Your task to perform on an android device: Do I have any events today? Image 0: 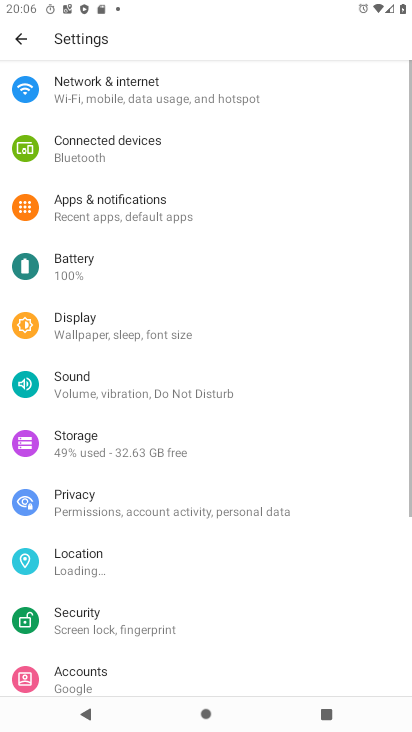
Step 0: press home button
Your task to perform on an android device: Do I have any events today? Image 1: 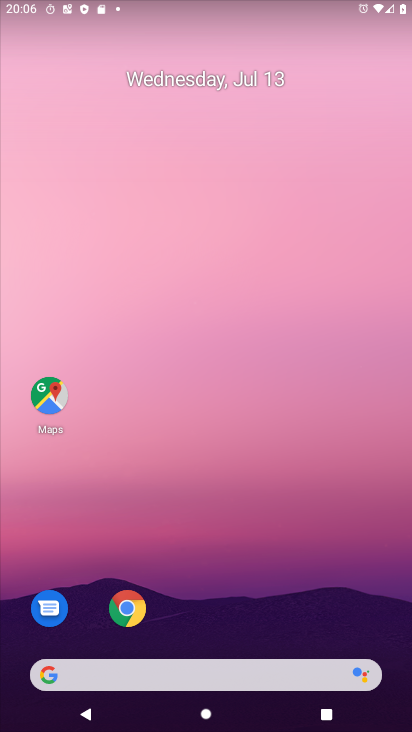
Step 1: drag from (221, 653) to (215, 165)
Your task to perform on an android device: Do I have any events today? Image 2: 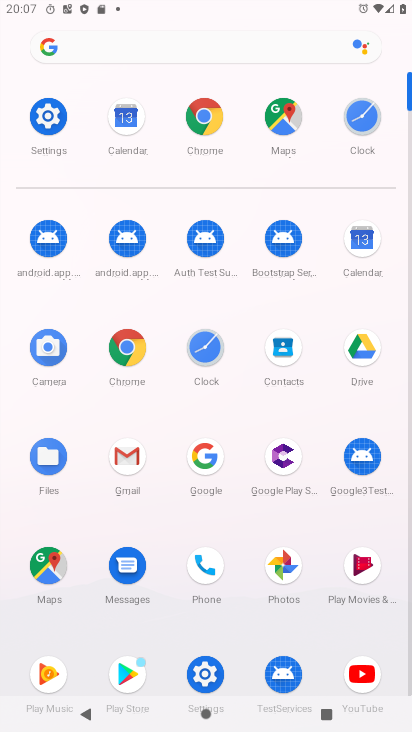
Step 2: click (357, 239)
Your task to perform on an android device: Do I have any events today? Image 3: 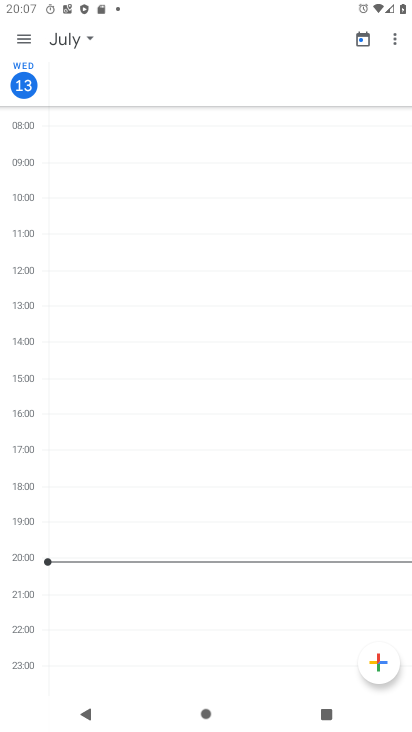
Step 3: click (23, 91)
Your task to perform on an android device: Do I have any events today? Image 4: 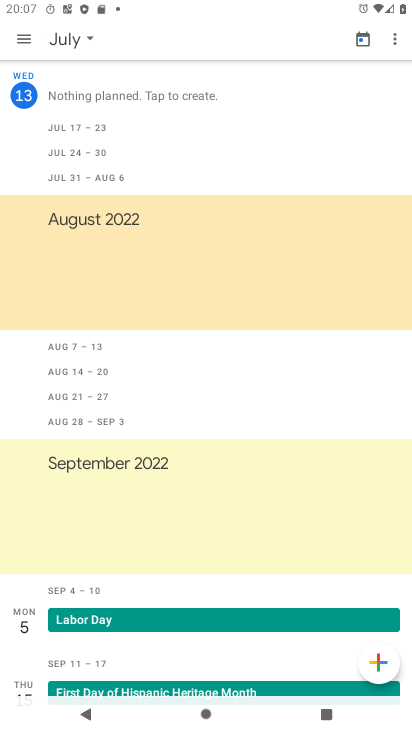
Step 4: task complete